Your task to perform on an android device: turn off location Image 0: 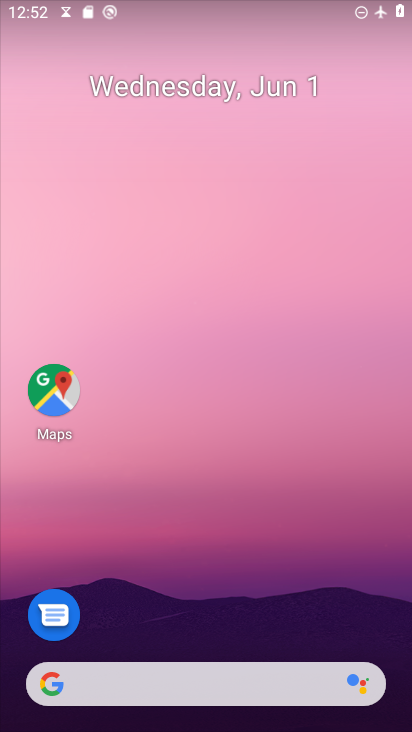
Step 0: drag from (241, 480) to (223, 175)
Your task to perform on an android device: turn off location Image 1: 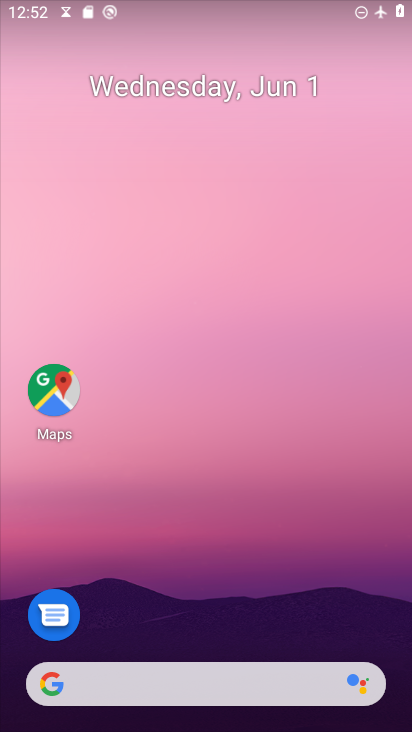
Step 1: drag from (219, 603) to (199, 25)
Your task to perform on an android device: turn off location Image 2: 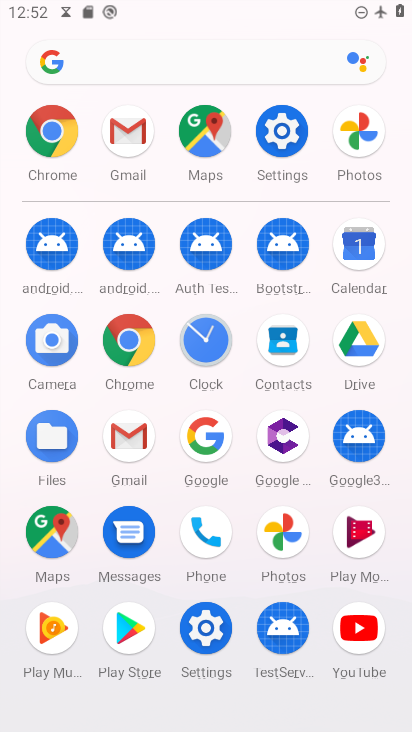
Step 2: click (287, 139)
Your task to perform on an android device: turn off location Image 3: 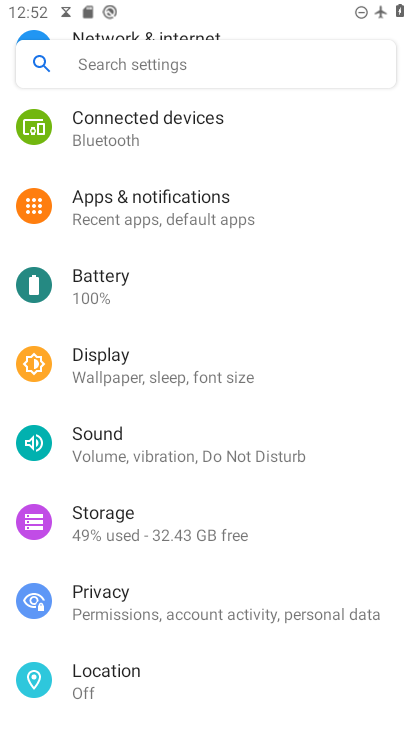
Step 3: click (103, 677)
Your task to perform on an android device: turn off location Image 4: 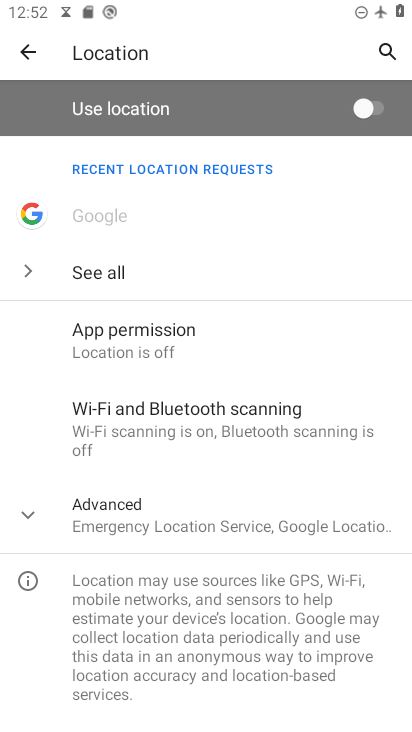
Step 4: task complete